Your task to perform on an android device: Go to ESPN.com Image 0: 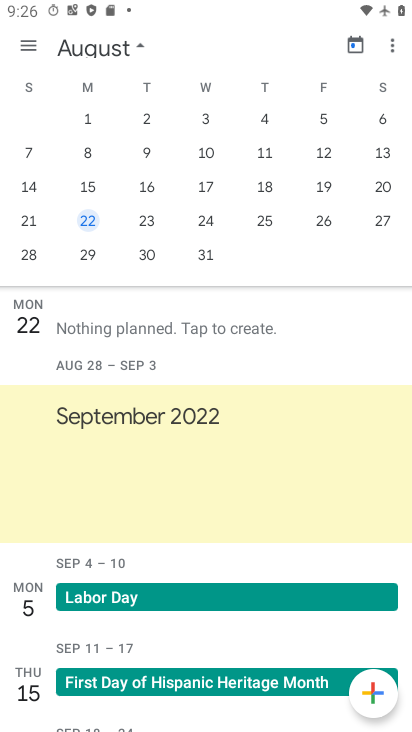
Step 0: press home button
Your task to perform on an android device: Go to ESPN.com Image 1: 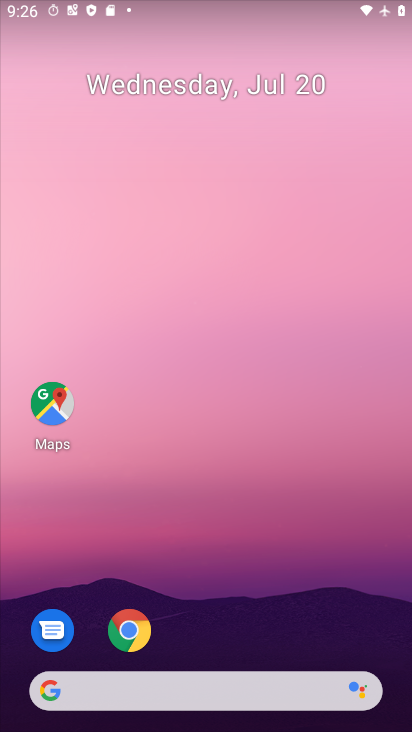
Step 1: drag from (224, 686) to (249, 238)
Your task to perform on an android device: Go to ESPN.com Image 2: 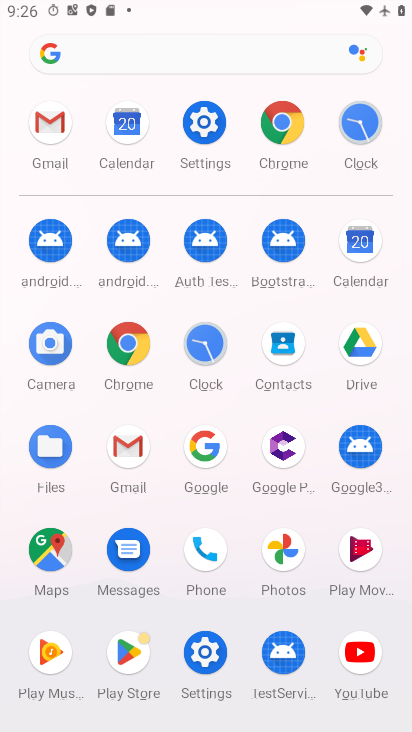
Step 2: click (286, 146)
Your task to perform on an android device: Go to ESPN.com Image 3: 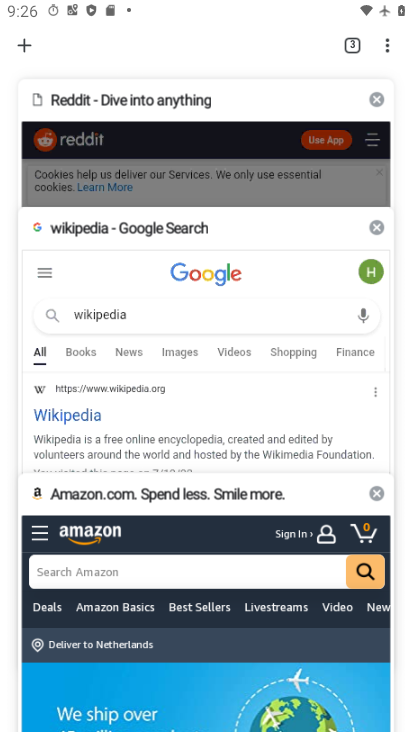
Step 3: click (227, 566)
Your task to perform on an android device: Go to ESPN.com Image 4: 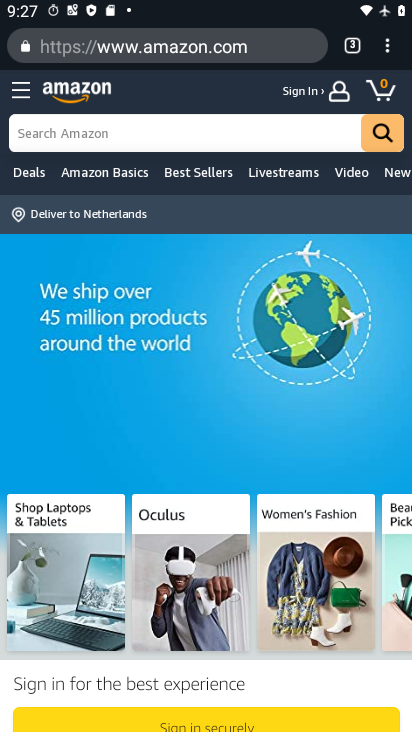
Step 4: click (268, 53)
Your task to perform on an android device: Go to ESPN.com Image 5: 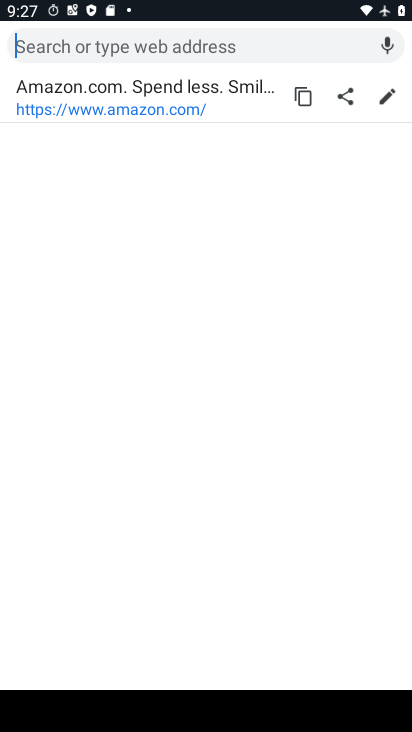
Step 5: type "espn"
Your task to perform on an android device: Go to ESPN.com Image 6: 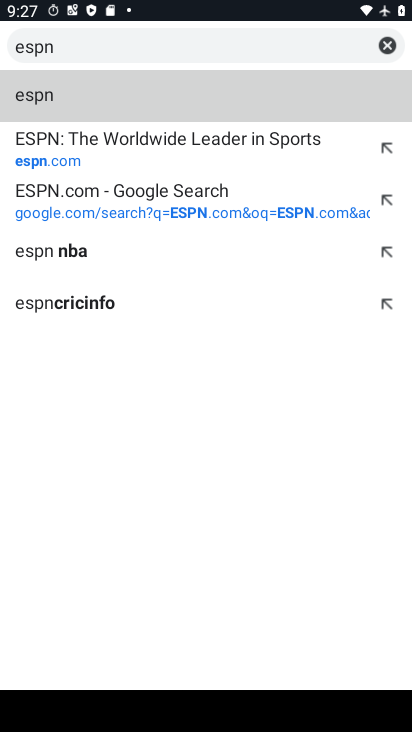
Step 6: click (95, 154)
Your task to perform on an android device: Go to ESPN.com Image 7: 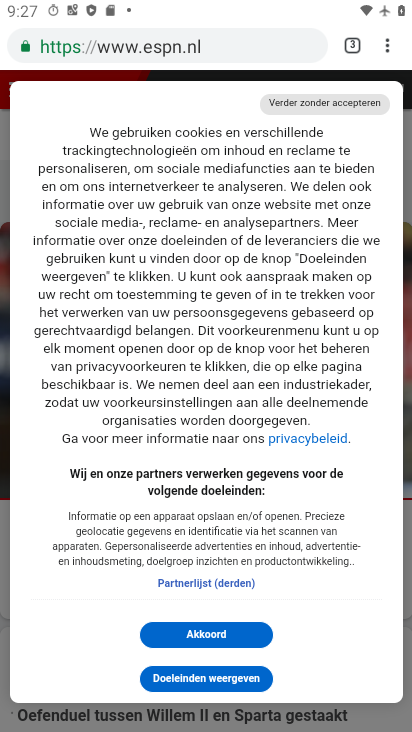
Step 7: task complete